Your task to perform on an android device: Clear all items from cart on bestbuy. Add macbook to the cart on bestbuy Image 0: 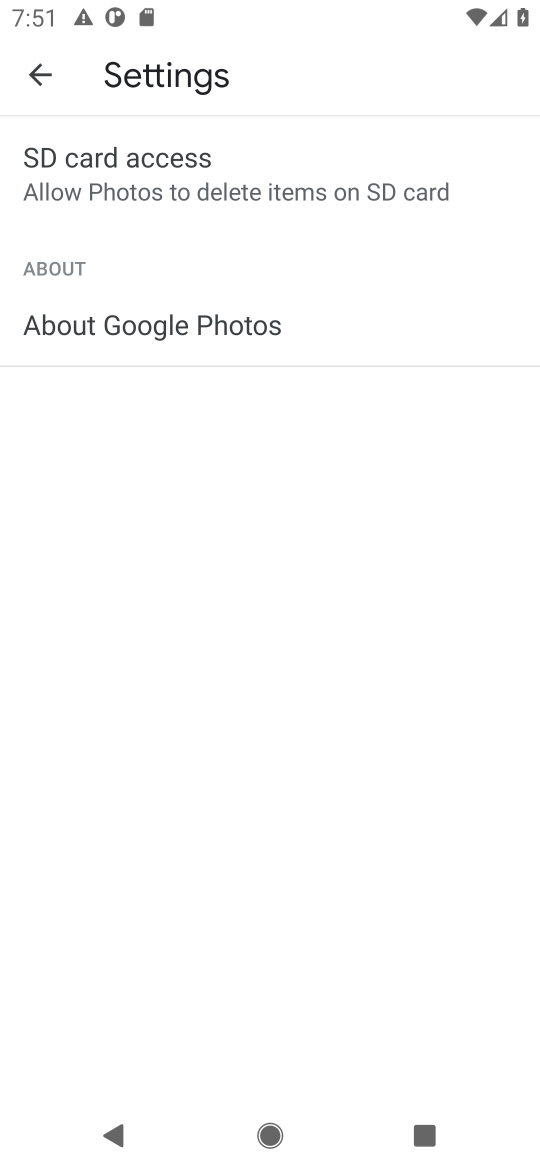
Step 0: press home button
Your task to perform on an android device: Clear all items from cart on bestbuy. Add macbook to the cart on bestbuy Image 1: 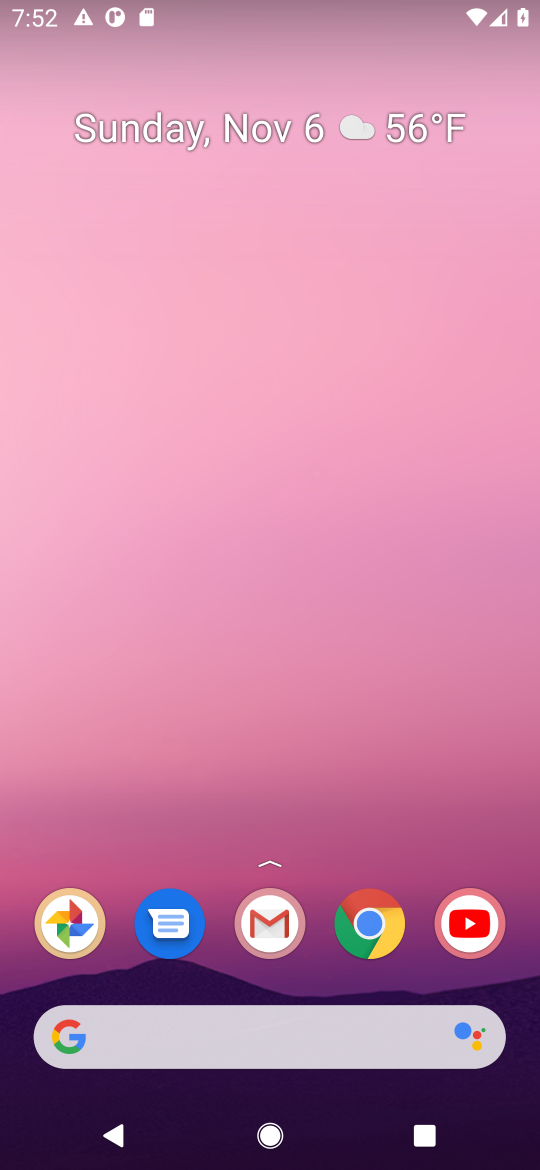
Step 1: click (374, 937)
Your task to perform on an android device: Clear all items from cart on bestbuy. Add macbook to the cart on bestbuy Image 2: 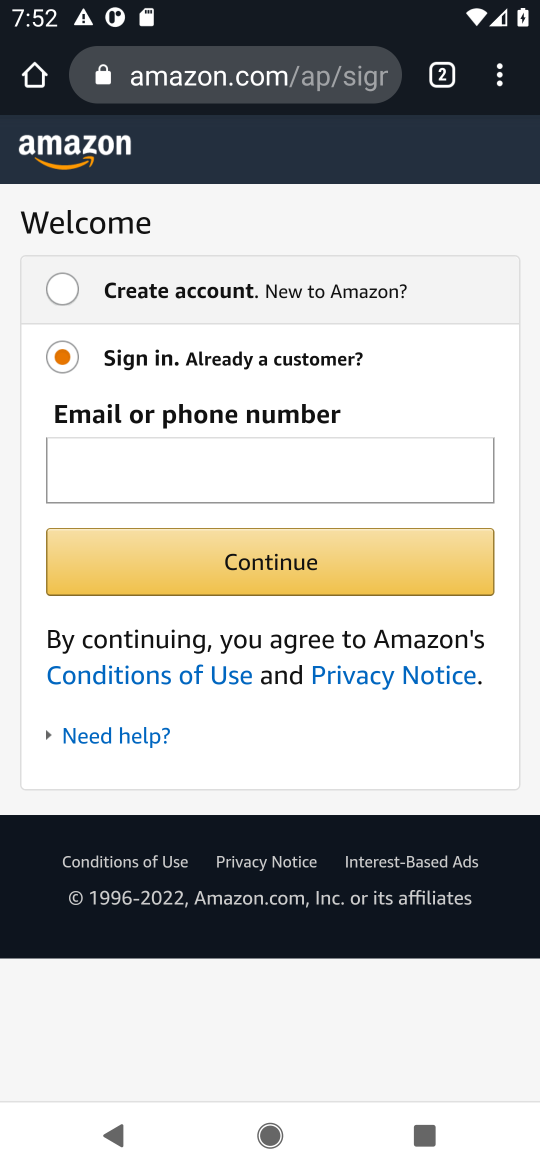
Step 2: click (228, 78)
Your task to perform on an android device: Clear all items from cart on bestbuy. Add macbook to the cart on bestbuy Image 3: 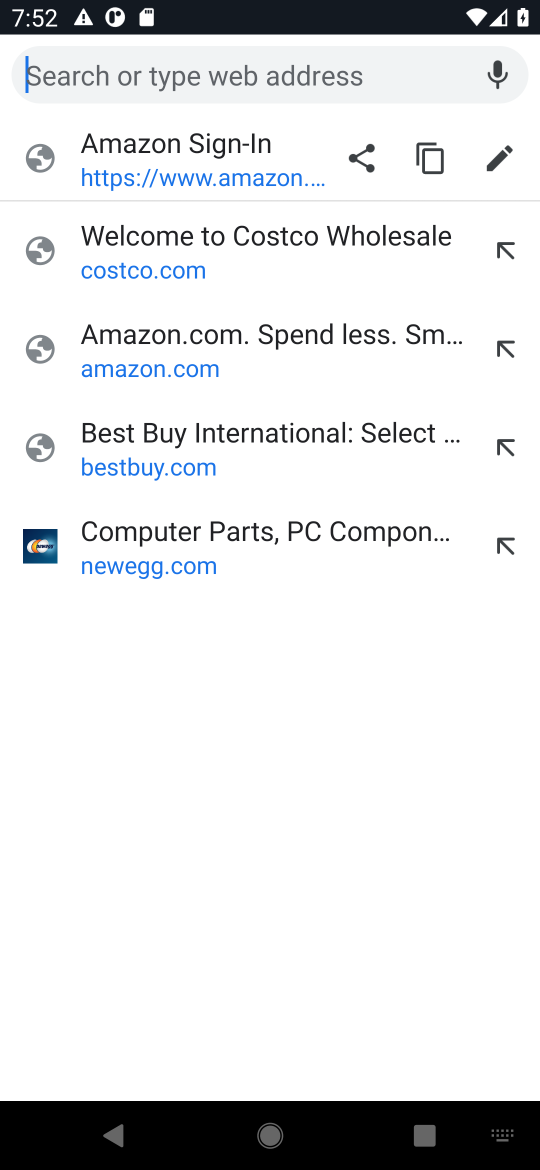
Step 3: click (152, 460)
Your task to perform on an android device: Clear all items from cart on bestbuy. Add macbook to the cart on bestbuy Image 4: 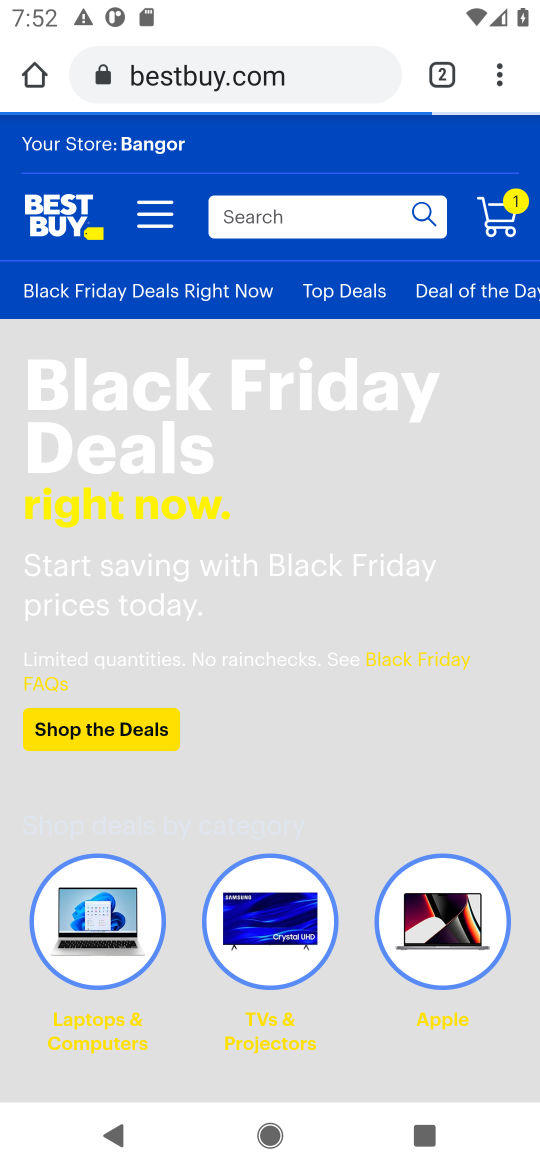
Step 4: click (488, 222)
Your task to perform on an android device: Clear all items from cart on bestbuy. Add macbook to the cart on bestbuy Image 5: 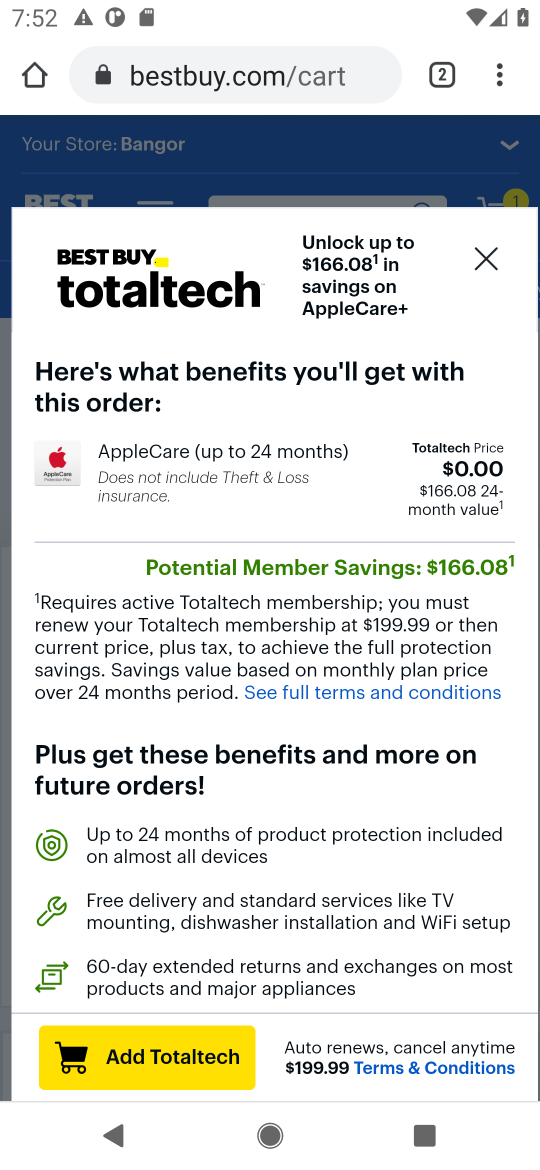
Step 5: click (490, 268)
Your task to perform on an android device: Clear all items from cart on bestbuy. Add macbook to the cart on bestbuy Image 6: 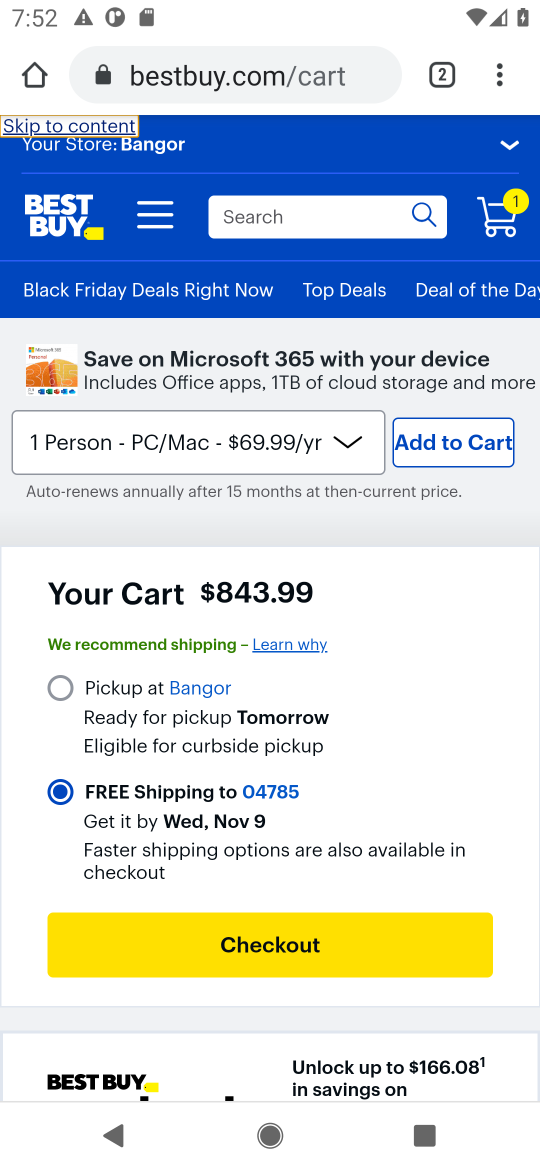
Step 6: drag from (352, 806) to (396, 364)
Your task to perform on an android device: Clear all items from cart on bestbuy. Add macbook to the cart on bestbuy Image 7: 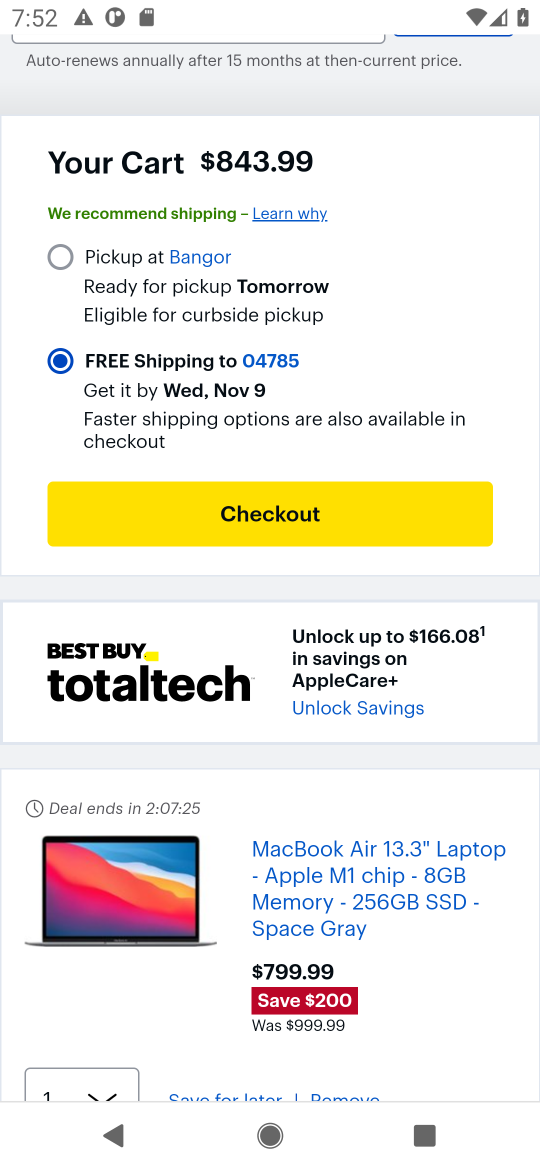
Step 7: drag from (335, 780) to (327, 407)
Your task to perform on an android device: Clear all items from cart on bestbuy. Add macbook to the cart on bestbuy Image 8: 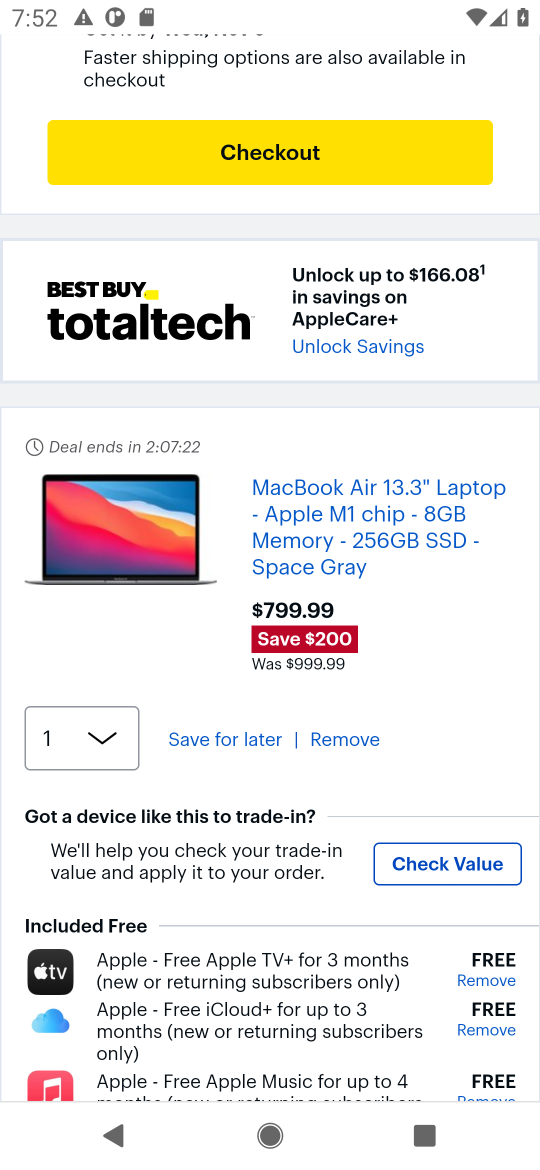
Step 8: click (343, 743)
Your task to perform on an android device: Clear all items from cart on bestbuy. Add macbook to the cart on bestbuy Image 9: 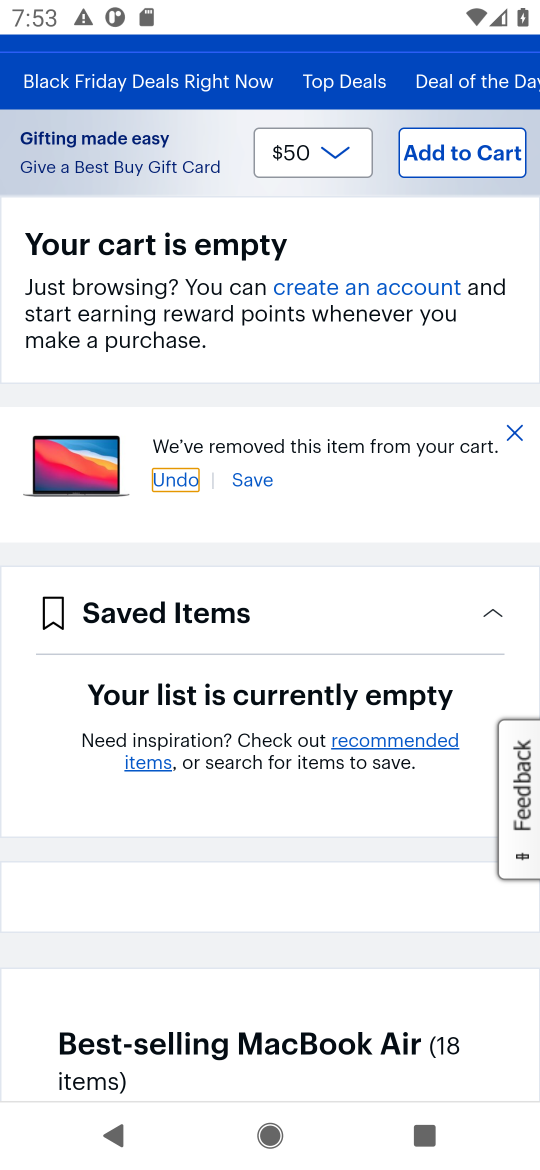
Step 9: drag from (265, 304) to (268, 727)
Your task to perform on an android device: Clear all items from cart on bestbuy. Add macbook to the cart on bestbuy Image 10: 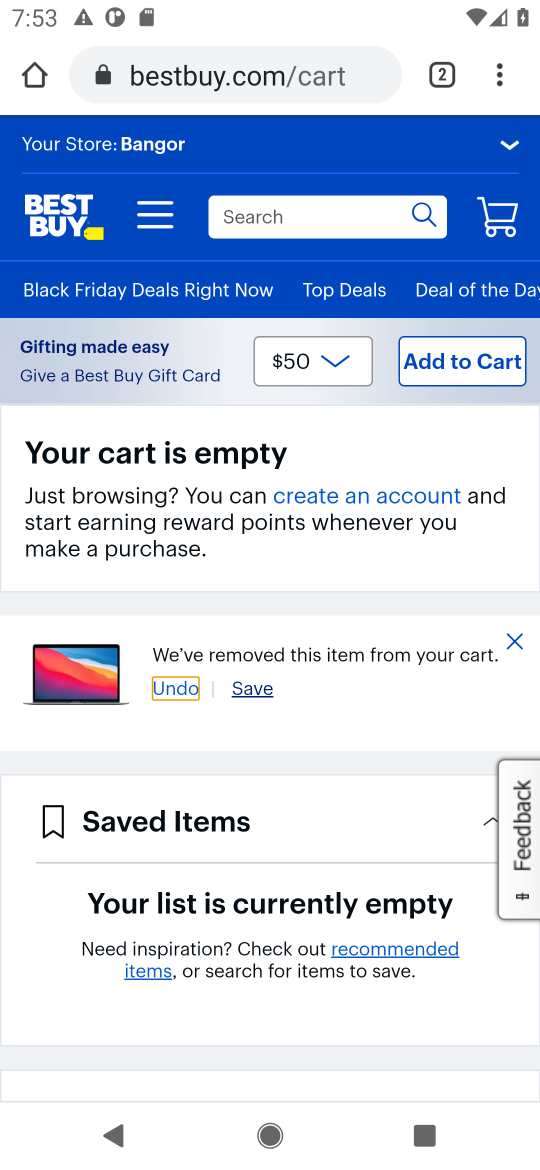
Step 10: click (313, 221)
Your task to perform on an android device: Clear all items from cart on bestbuy. Add macbook to the cart on bestbuy Image 11: 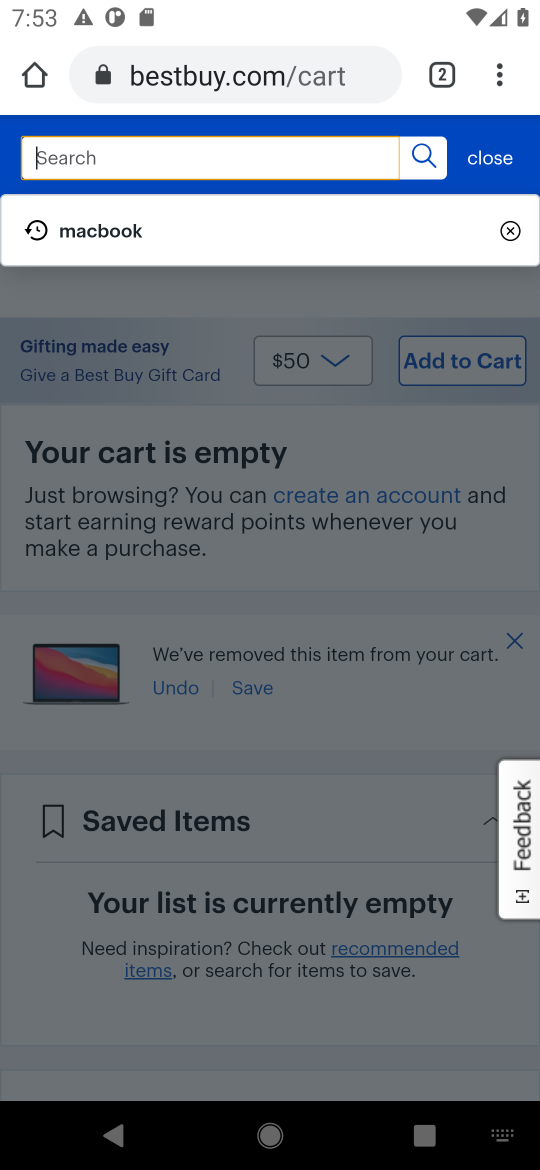
Step 11: click (87, 242)
Your task to perform on an android device: Clear all items from cart on bestbuy. Add macbook to the cart on bestbuy Image 12: 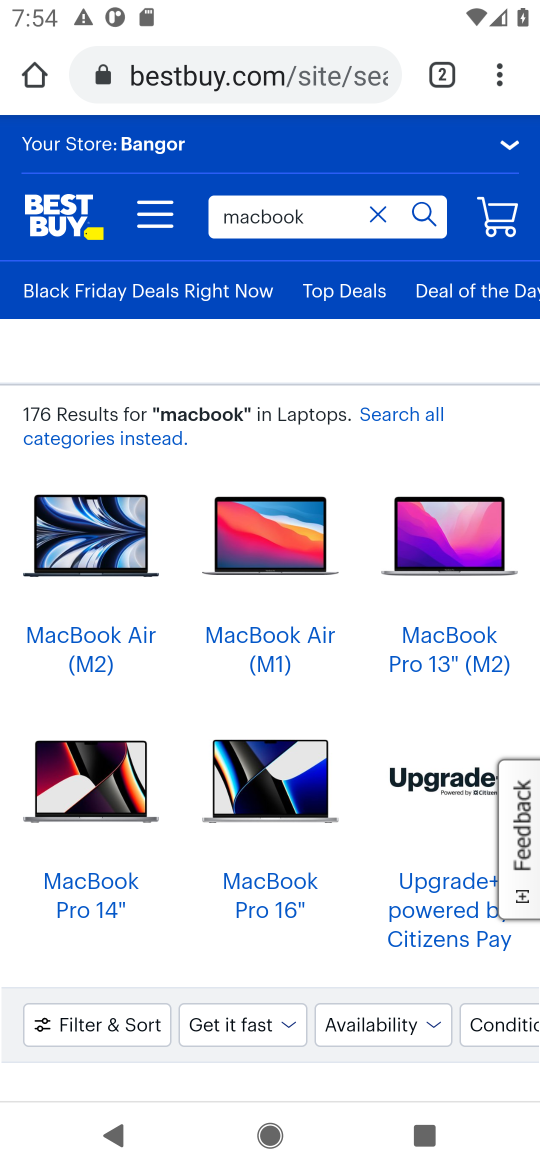
Step 12: drag from (208, 855) to (245, 478)
Your task to perform on an android device: Clear all items from cart on bestbuy. Add macbook to the cart on bestbuy Image 13: 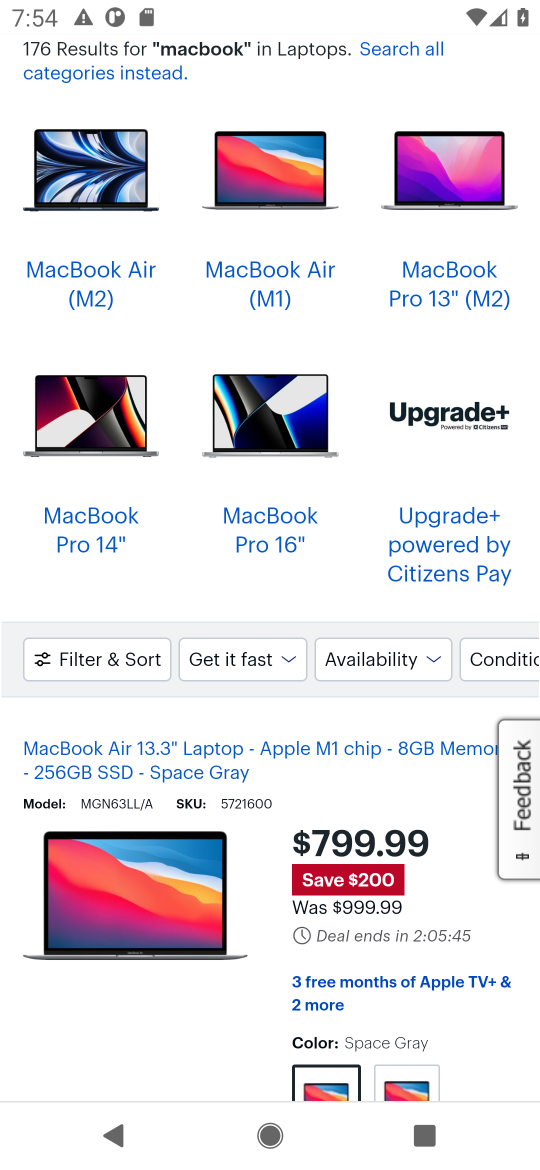
Step 13: drag from (244, 795) to (280, 514)
Your task to perform on an android device: Clear all items from cart on bestbuy. Add macbook to the cart on bestbuy Image 14: 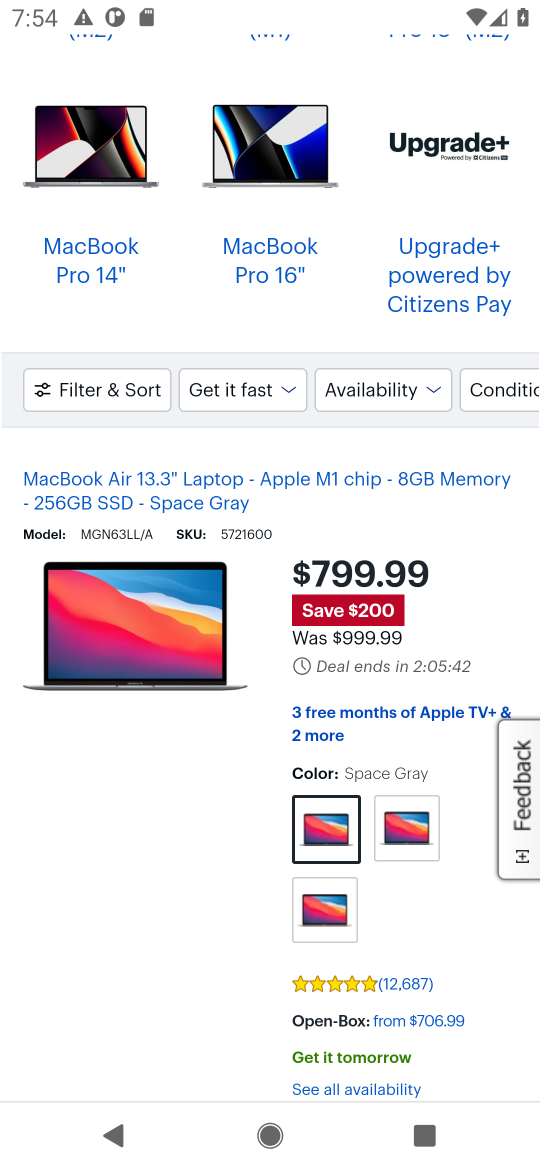
Step 14: drag from (351, 951) to (334, 660)
Your task to perform on an android device: Clear all items from cart on bestbuy. Add macbook to the cart on bestbuy Image 15: 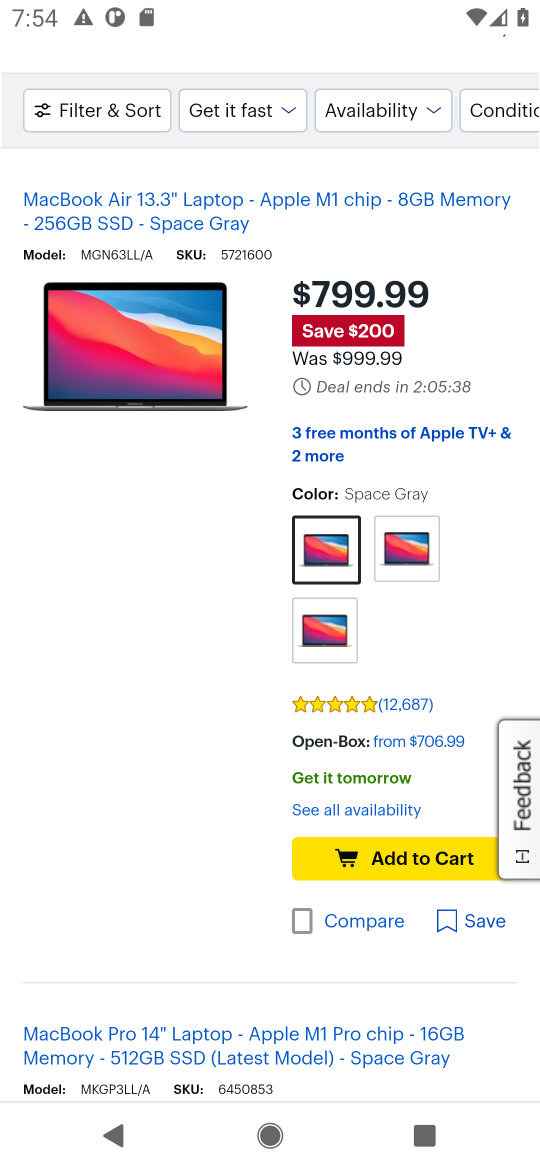
Step 15: click (395, 861)
Your task to perform on an android device: Clear all items from cart on bestbuy. Add macbook to the cart on bestbuy Image 16: 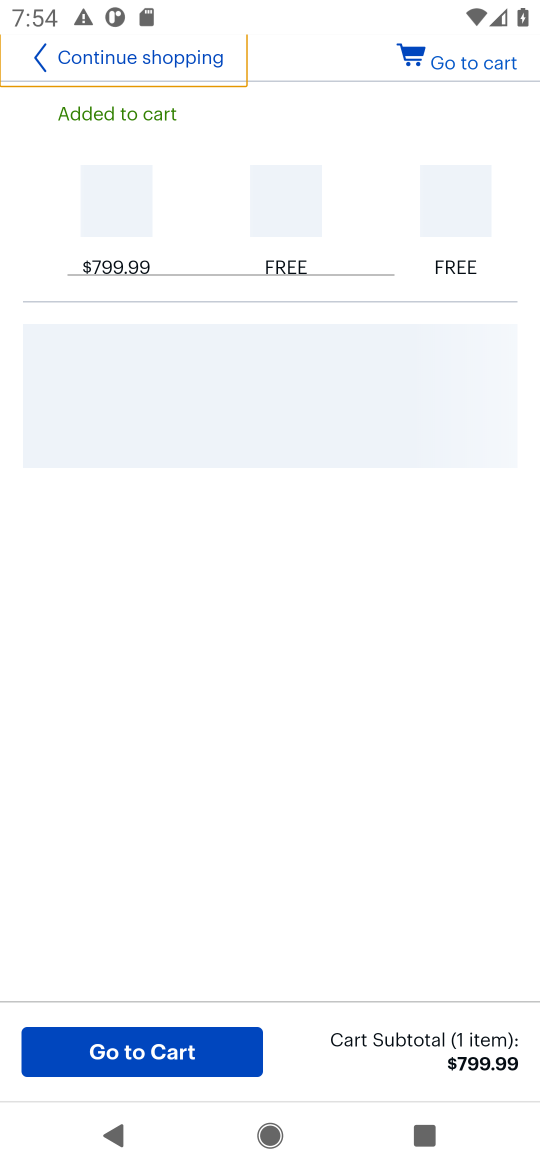
Step 16: task complete